Your task to perform on an android device: toggle show notifications on the lock screen Image 0: 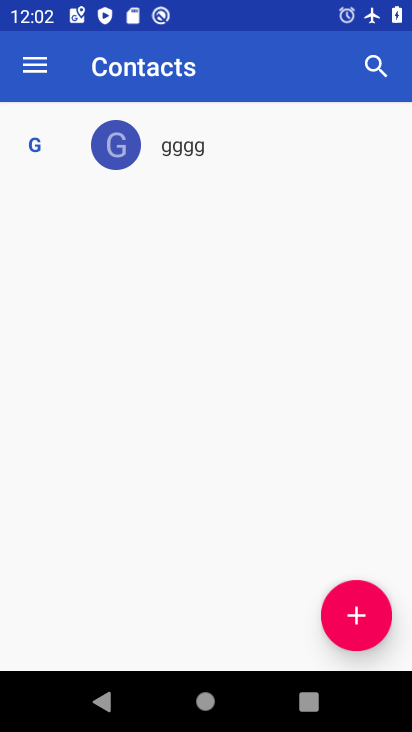
Step 0: press home button
Your task to perform on an android device: toggle show notifications on the lock screen Image 1: 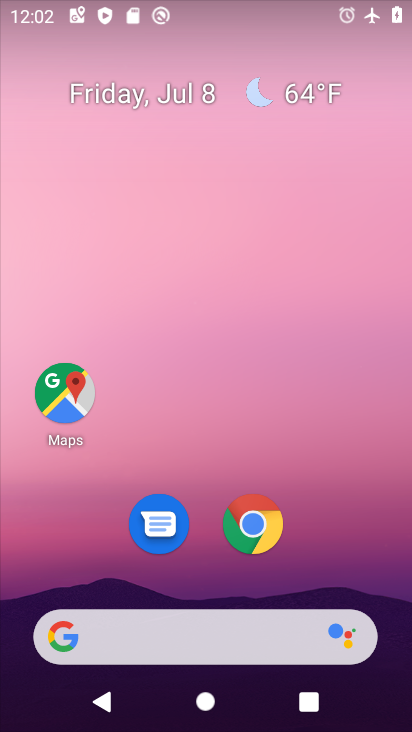
Step 1: drag from (333, 545) to (241, 18)
Your task to perform on an android device: toggle show notifications on the lock screen Image 2: 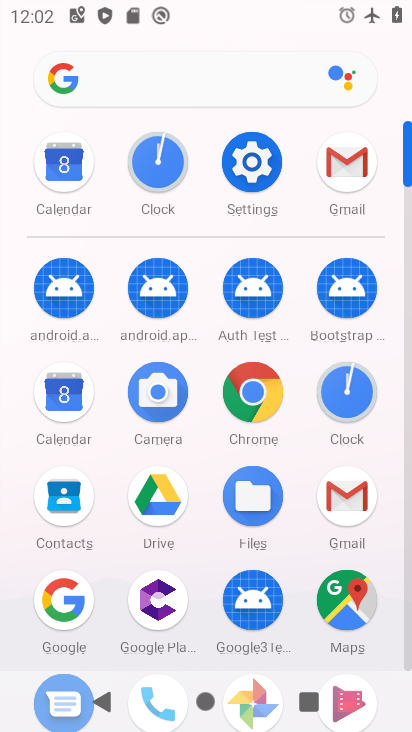
Step 2: click (252, 151)
Your task to perform on an android device: toggle show notifications on the lock screen Image 3: 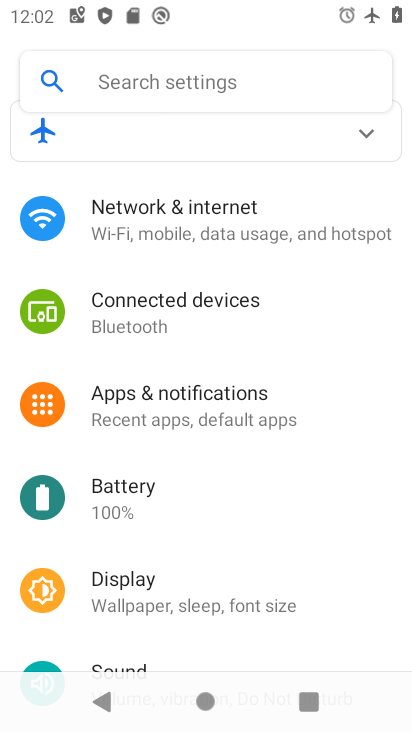
Step 3: click (255, 424)
Your task to perform on an android device: toggle show notifications on the lock screen Image 4: 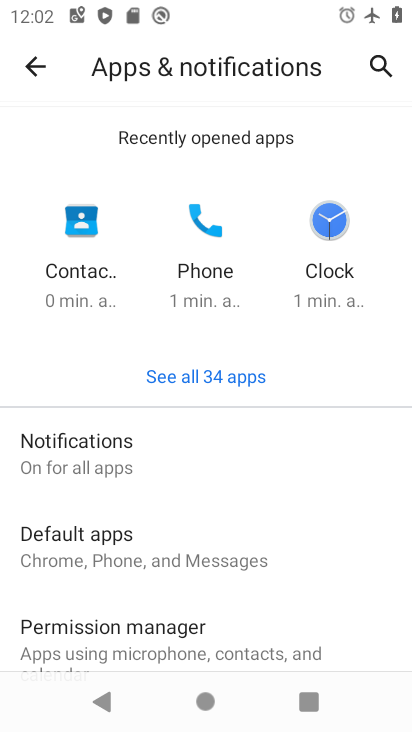
Step 4: click (126, 462)
Your task to perform on an android device: toggle show notifications on the lock screen Image 5: 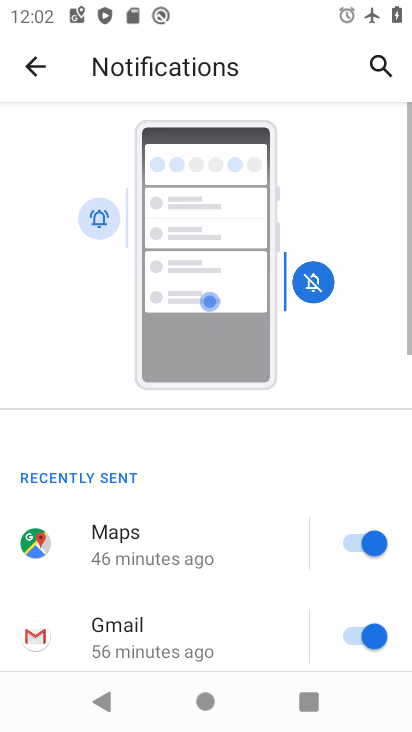
Step 5: drag from (240, 578) to (261, 125)
Your task to perform on an android device: toggle show notifications on the lock screen Image 6: 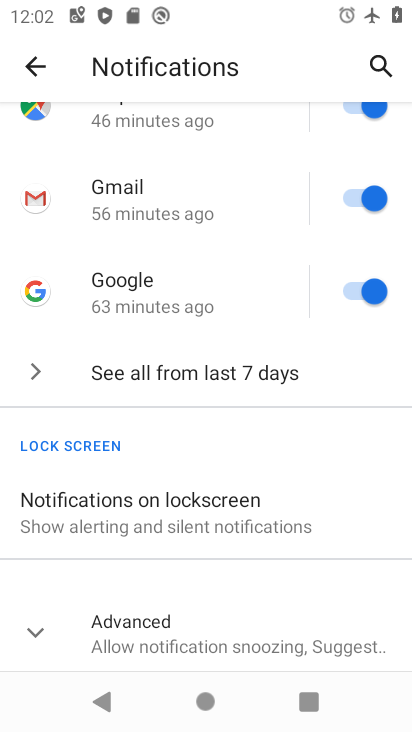
Step 6: click (235, 515)
Your task to perform on an android device: toggle show notifications on the lock screen Image 7: 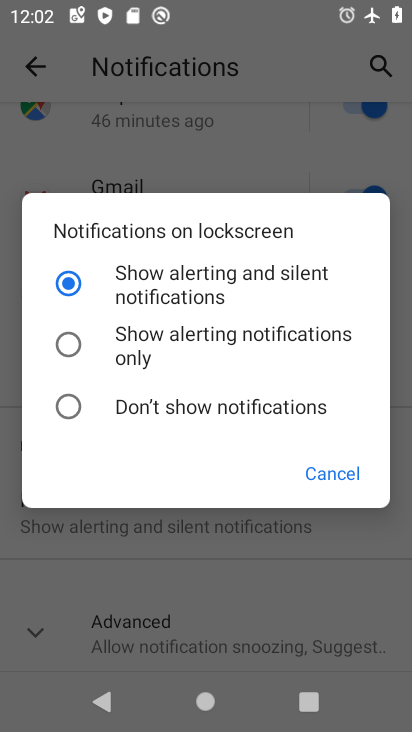
Step 7: click (71, 405)
Your task to perform on an android device: toggle show notifications on the lock screen Image 8: 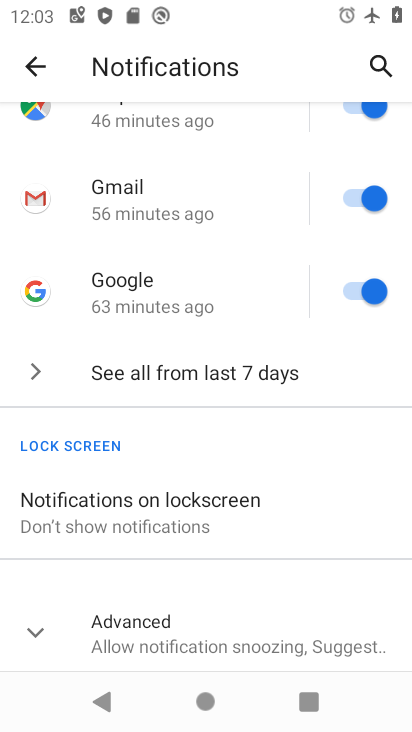
Step 8: task complete